Your task to perform on an android device: turn on the 12-hour format for clock Image 0: 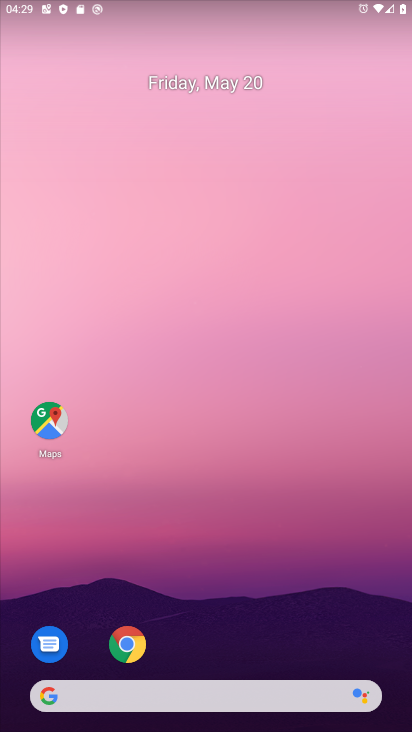
Step 0: drag from (272, 652) to (259, 17)
Your task to perform on an android device: turn on the 12-hour format for clock Image 1: 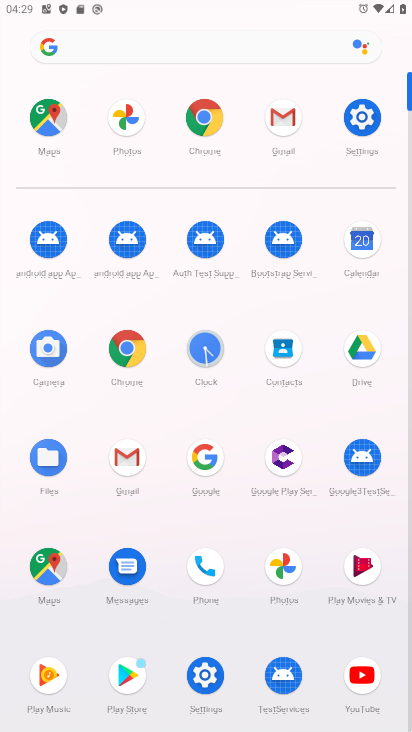
Step 1: click (208, 365)
Your task to perform on an android device: turn on the 12-hour format for clock Image 2: 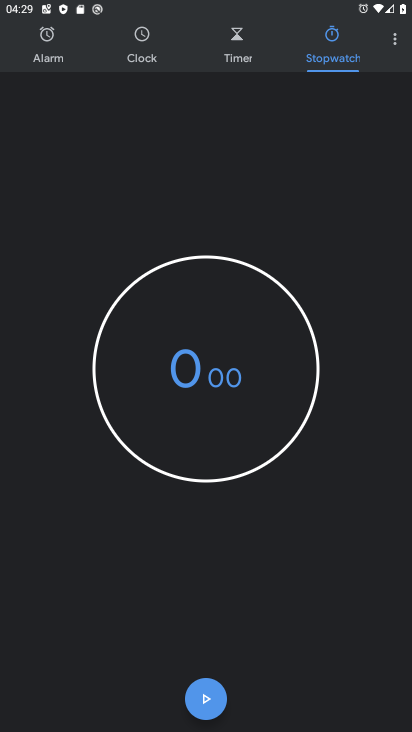
Step 2: click (395, 59)
Your task to perform on an android device: turn on the 12-hour format for clock Image 3: 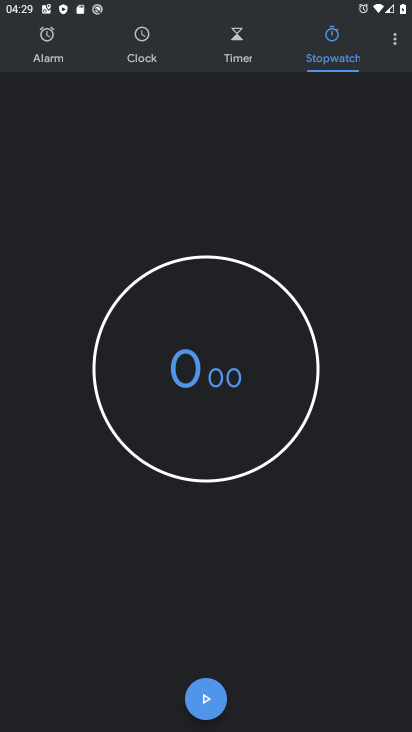
Step 3: click (392, 43)
Your task to perform on an android device: turn on the 12-hour format for clock Image 4: 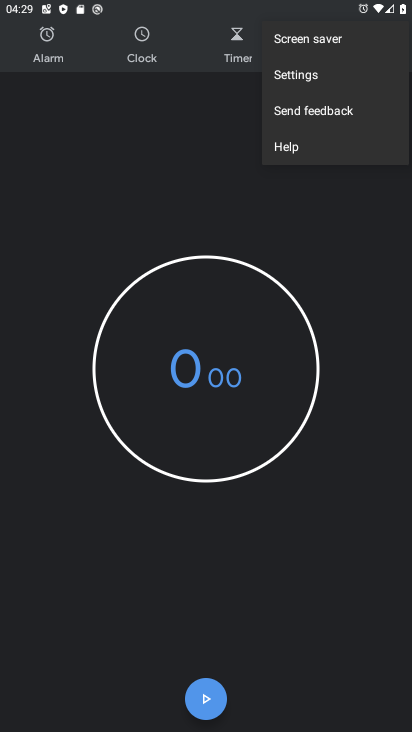
Step 4: click (322, 92)
Your task to perform on an android device: turn on the 12-hour format for clock Image 5: 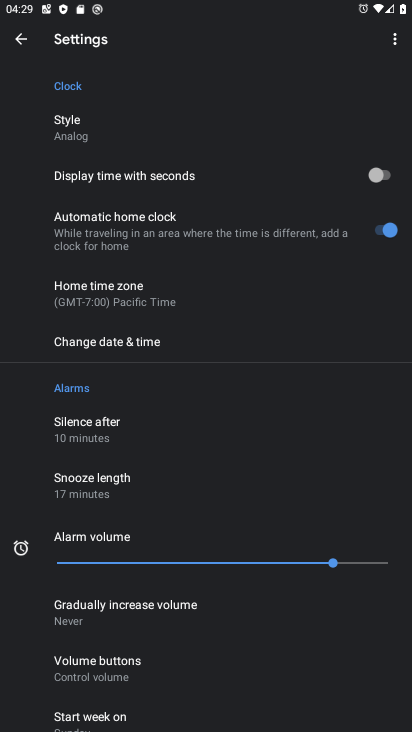
Step 5: click (94, 328)
Your task to perform on an android device: turn on the 12-hour format for clock Image 6: 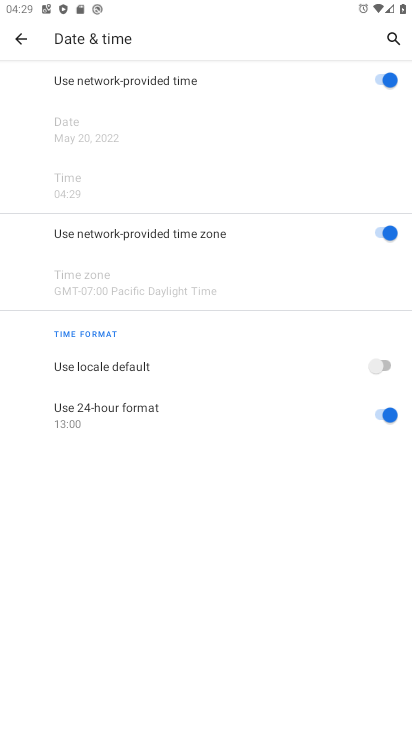
Step 6: click (278, 416)
Your task to perform on an android device: turn on the 12-hour format for clock Image 7: 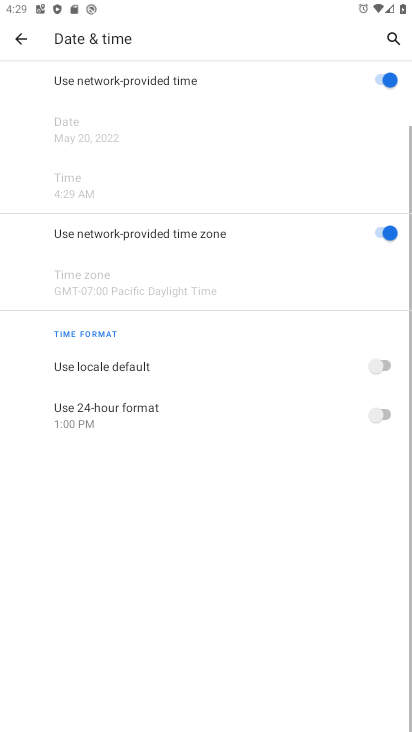
Step 7: task complete